Your task to perform on an android device: Go to Amazon Image 0: 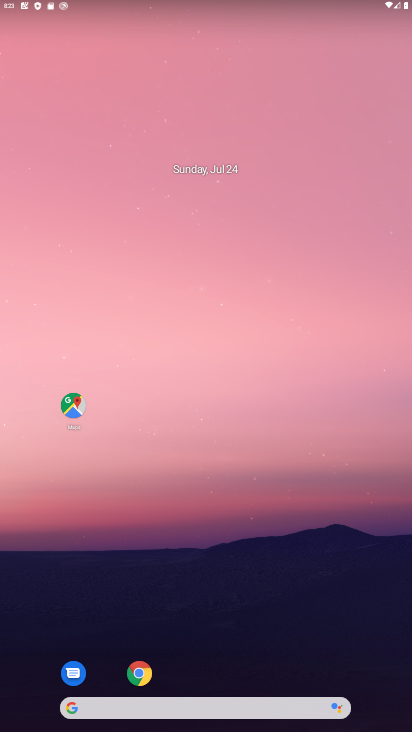
Step 0: click (142, 673)
Your task to perform on an android device: Go to Amazon Image 1: 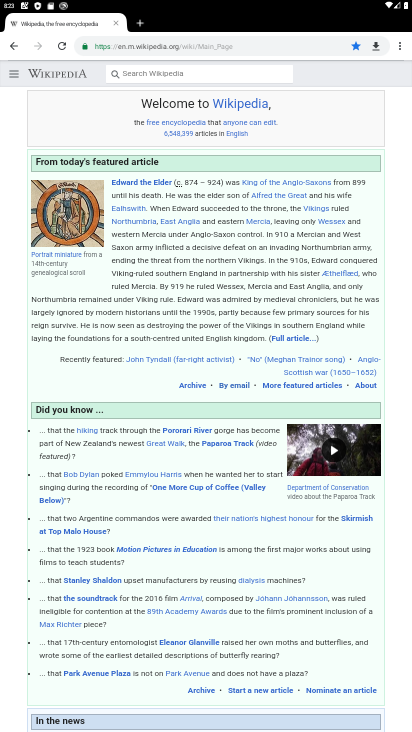
Step 1: click (143, 44)
Your task to perform on an android device: Go to Amazon Image 2: 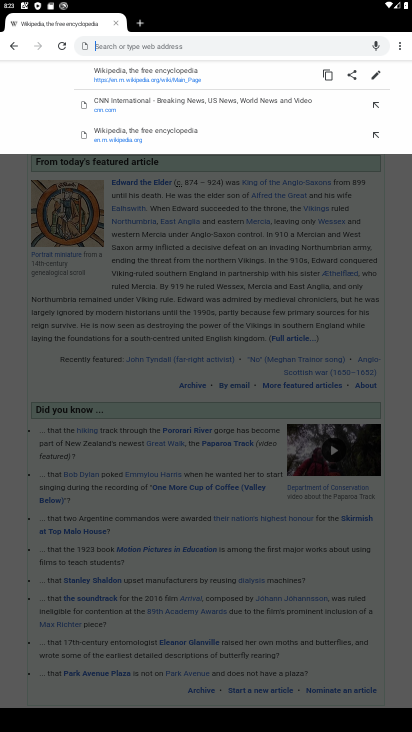
Step 2: type "www.amazon.com"
Your task to perform on an android device: Go to Amazon Image 3: 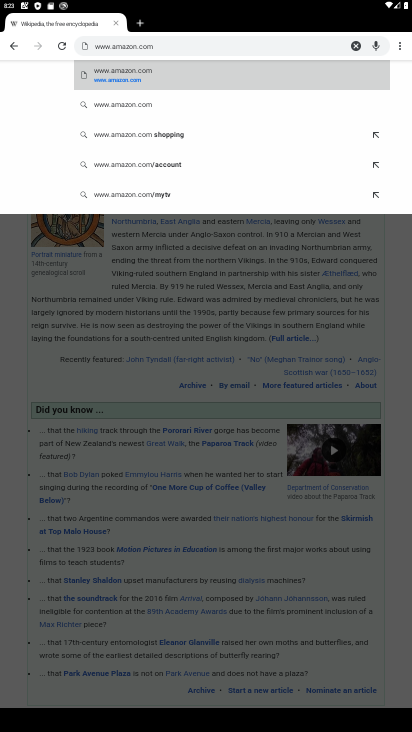
Step 3: click (109, 76)
Your task to perform on an android device: Go to Amazon Image 4: 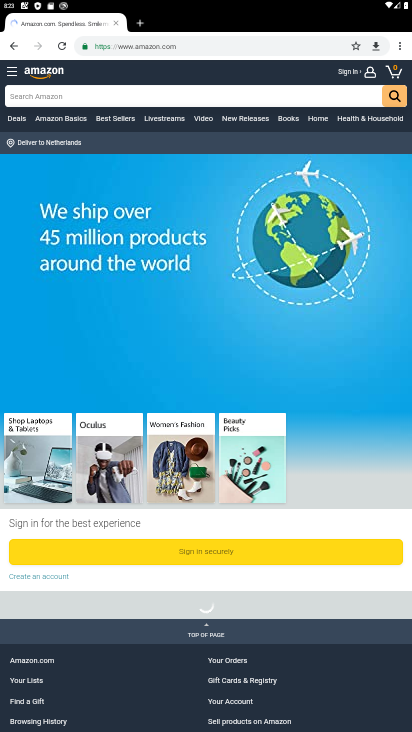
Step 4: task complete